Your task to perform on an android device: Go to CNN.com Image 0: 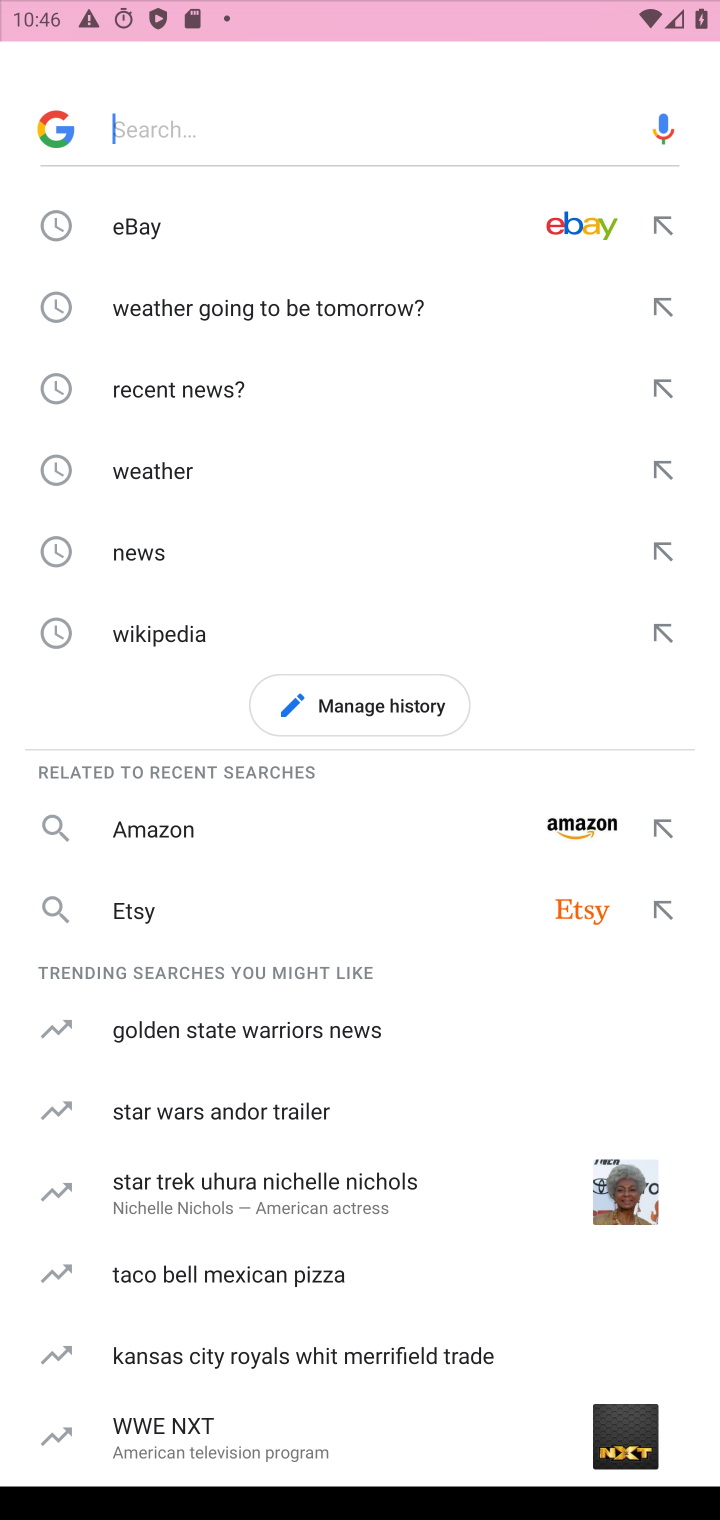
Step 0: press home button
Your task to perform on an android device: Go to CNN.com Image 1: 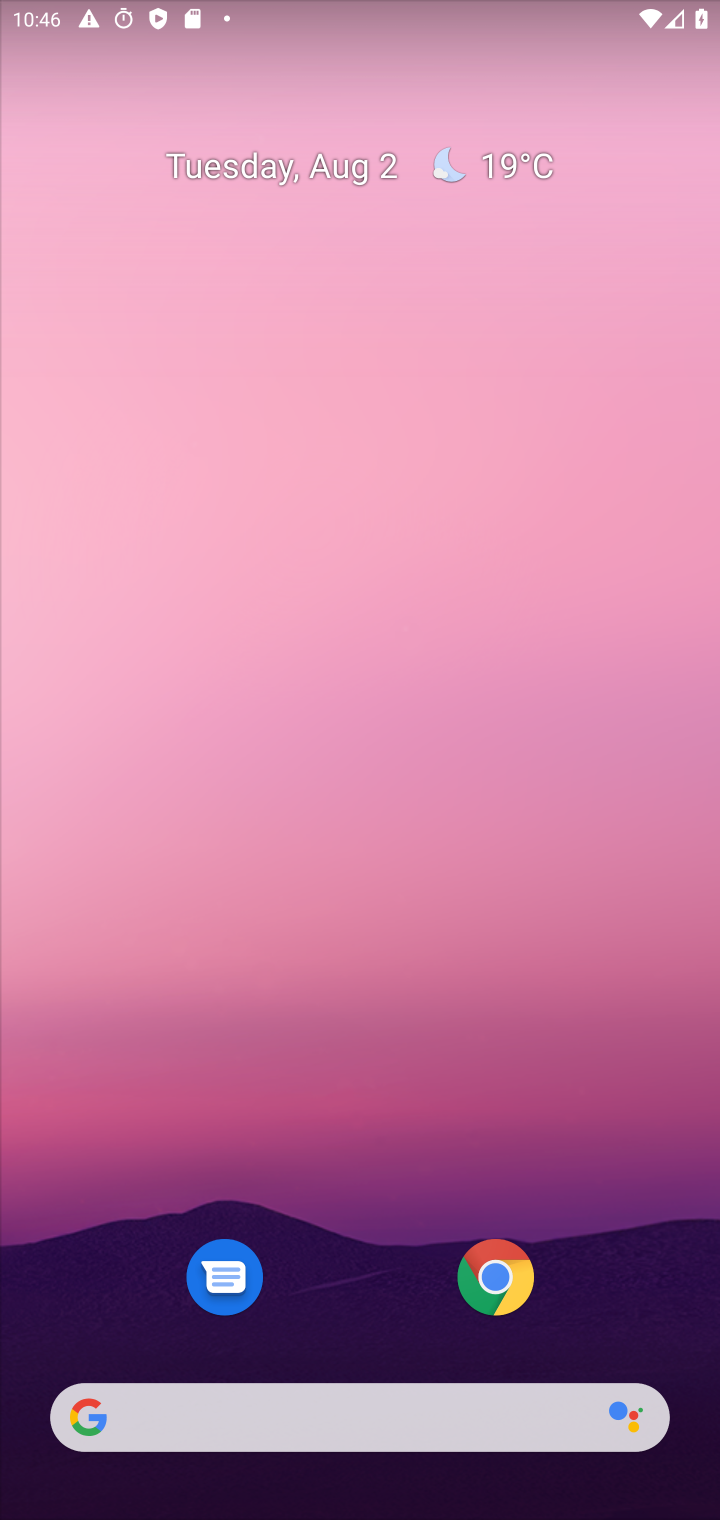
Step 1: press home button
Your task to perform on an android device: Go to CNN.com Image 2: 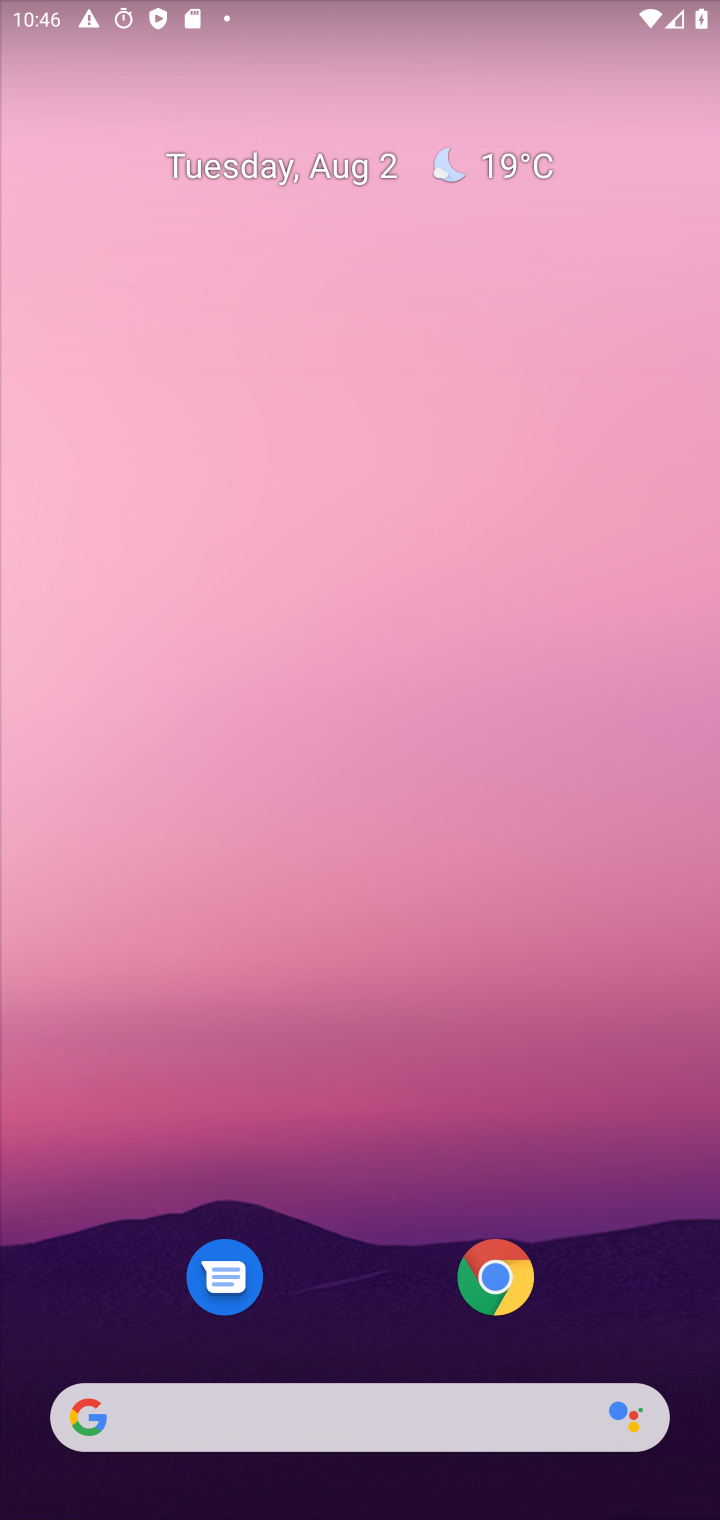
Step 2: click (101, 1421)
Your task to perform on an android device: Go to CNN.com Image 3: 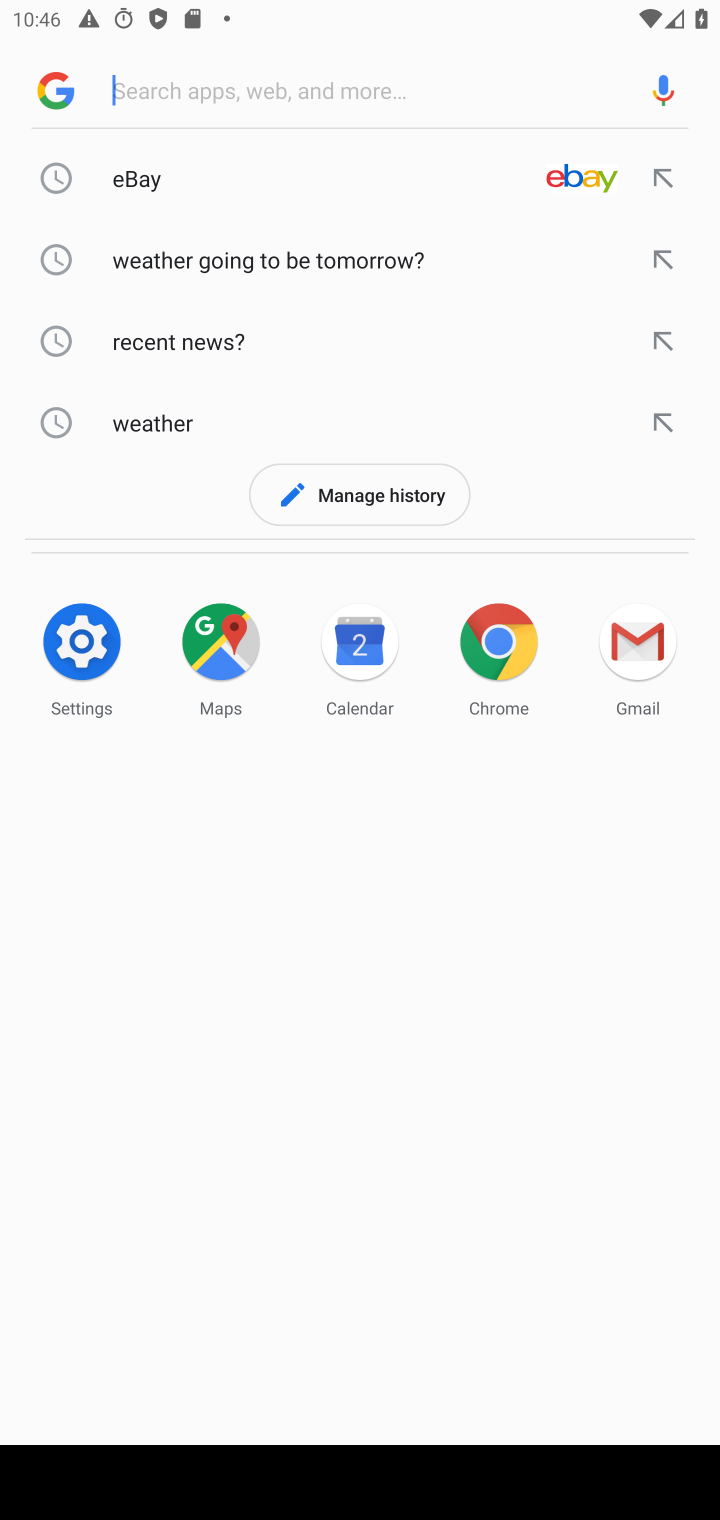
Step 3: type "CNN.com"
Your task to perform on an android device: Go to CNN.com Image 4: 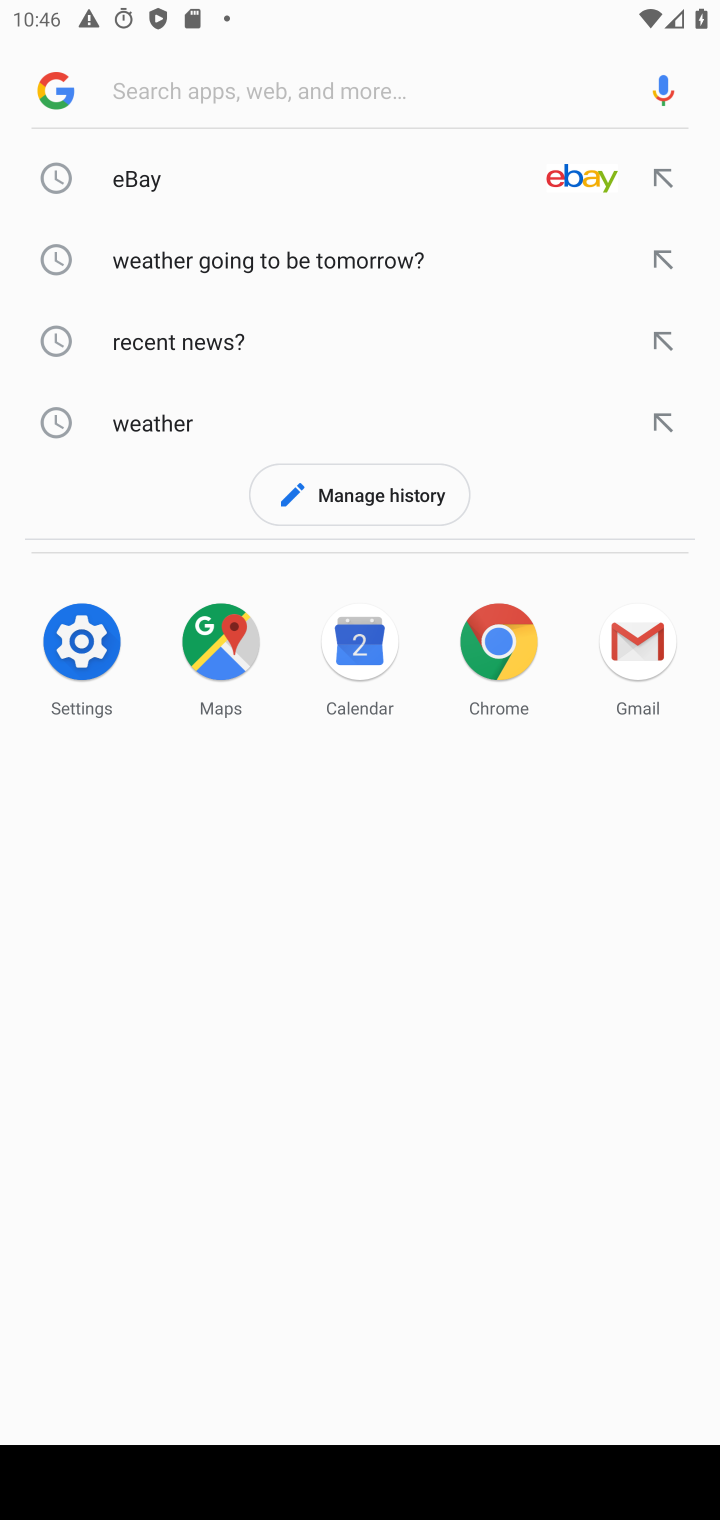
Step 4: click (185, 81)
Your task to perform on an android device: Go to CNN.com Image 5: 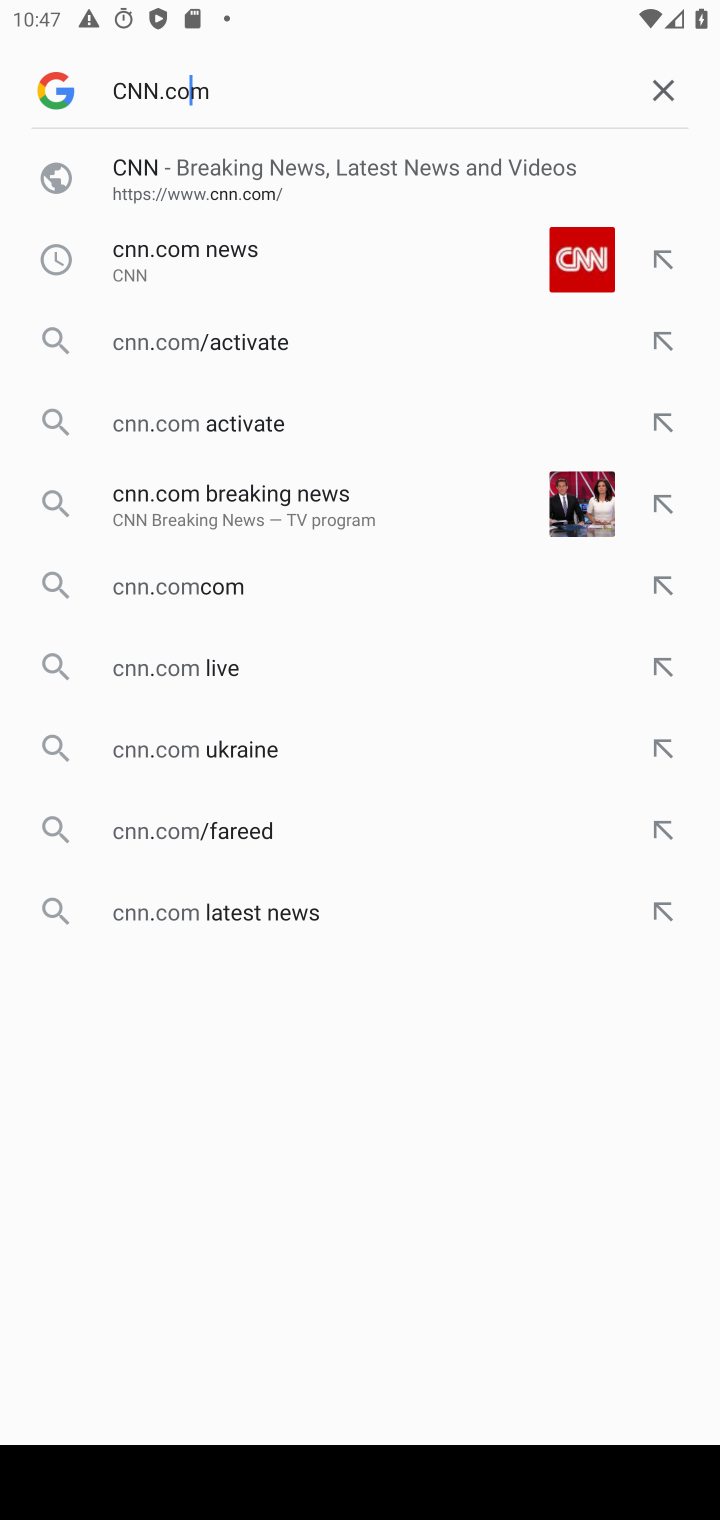
Step 5: press enter
Your task to perform on an android device: Go to CNN.com Image 6: 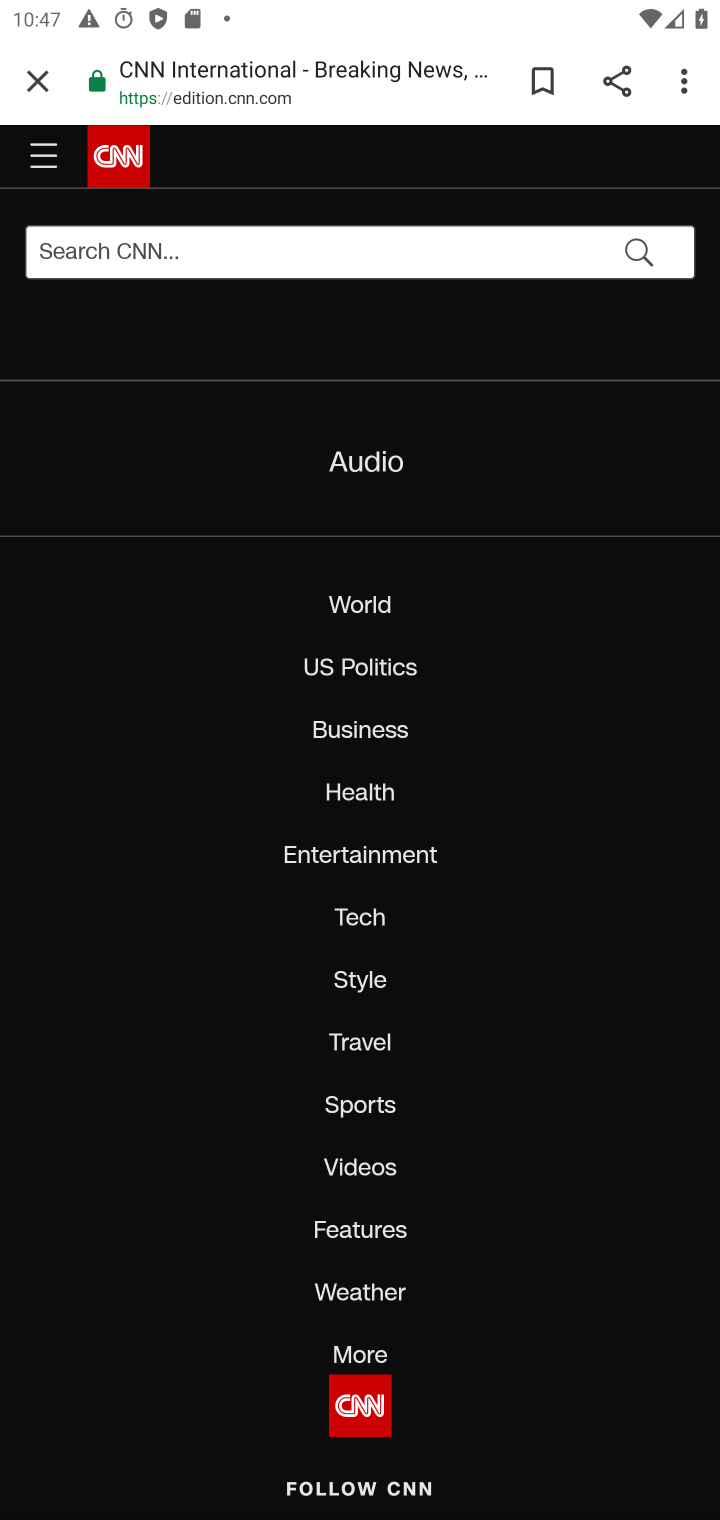
Step 6: task complete